Your task to perform on an android device: Go to wifi settings Image 0: 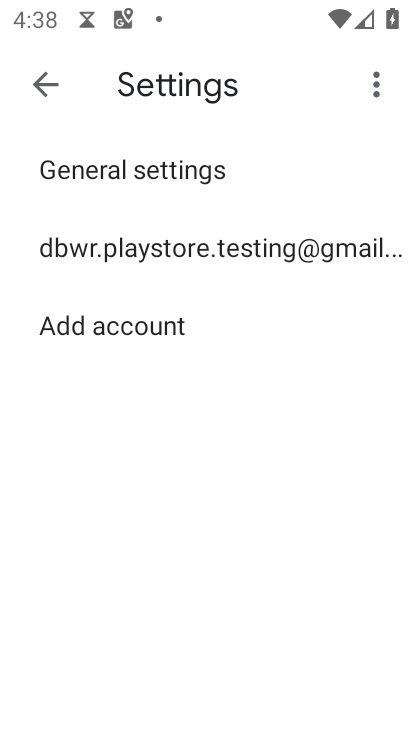
Step 0: press back button
Your task to perform on an android device: Go to wifi settings Image 1: 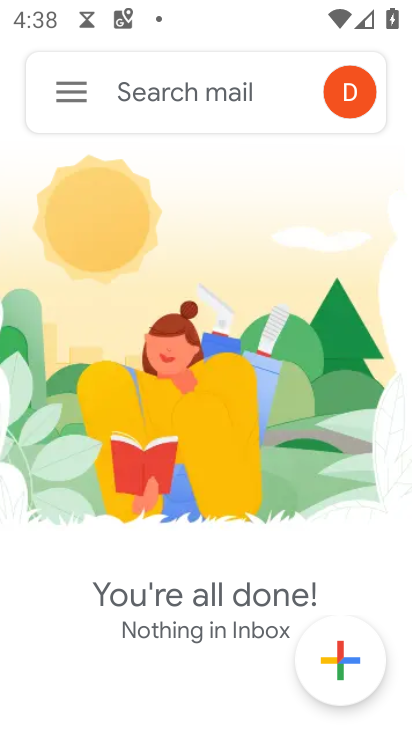
Step 1: press back button
Your task to perform on an android device: Go to wifi settings Image 2: 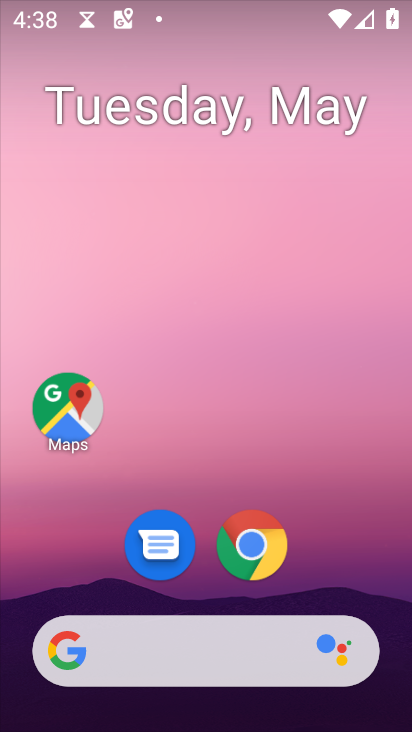
Step 2: drag from (345, 561) to (276, 166)
Your task to perform on an android device: Go to wifi settings Image 3: 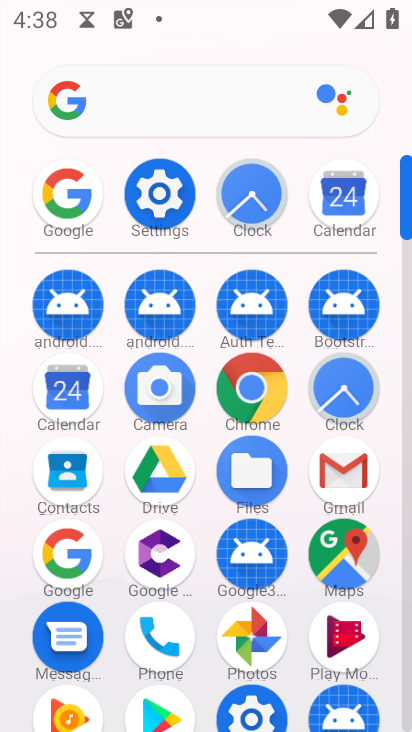
Step 3: click (162, 193)
Your task to perform on an android device: Go to wifi settings Image 4: 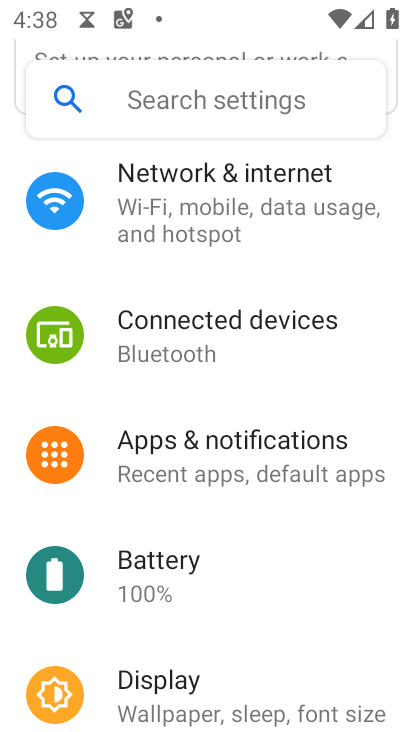
Step 4: click (214, 183)
Your task to perform on an android device: Go to wifi settings Image 5: 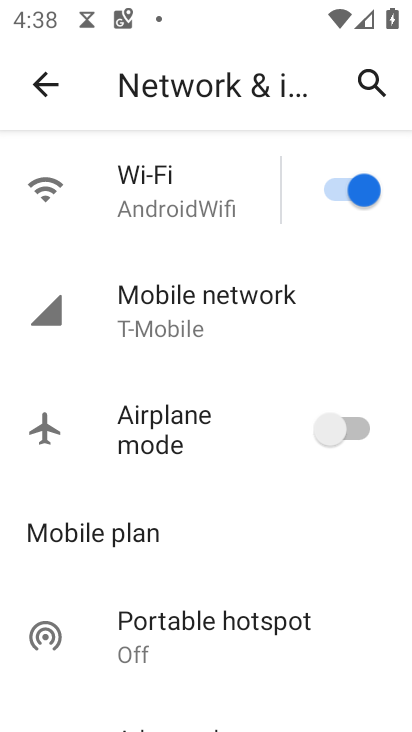
Step 5: click (148, 197)
Your task to perform on an android device: Go to wifi settings Image 6: 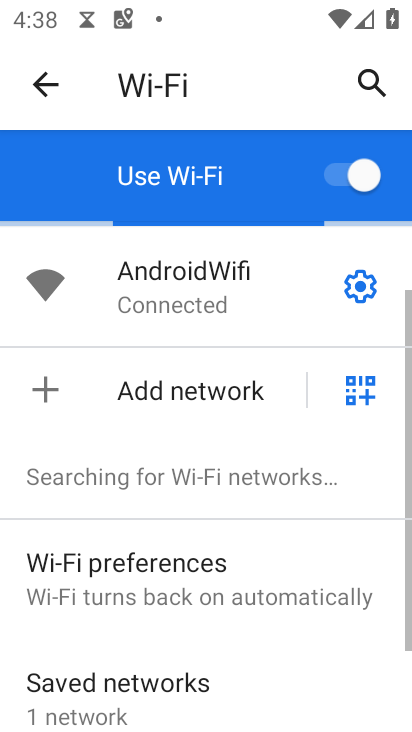
Step 6: click (360, 286)
Your task to perform on an android device: Go to wifi settings Image 7: 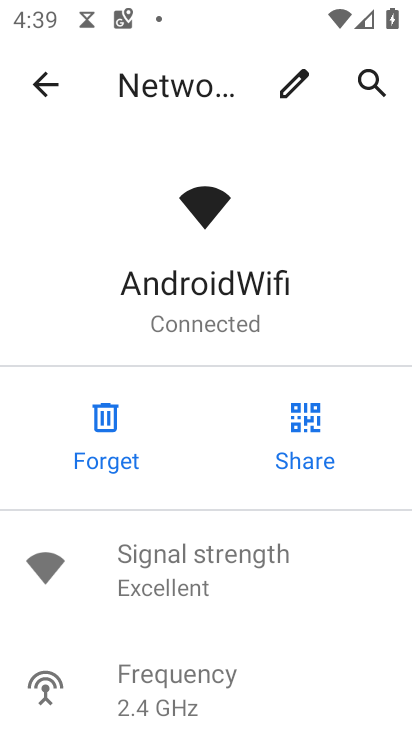
Step 7: task complete